Your task to perform on an android device: turn on wifi Image 0: 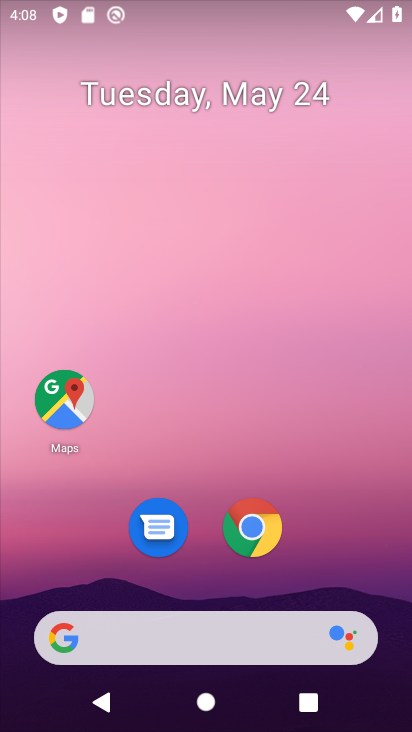
Step 0: drag from (140, 610) to (263, 197)
Your task to perform on an android device: turn on wifi Image 1: 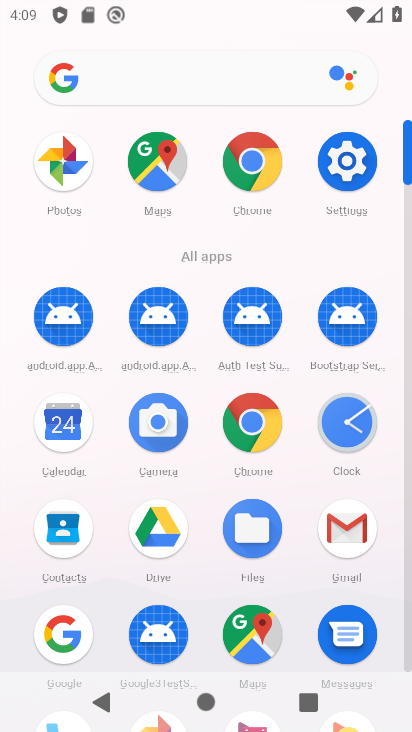
Step 1: click (342, 168)
Your task to perform on an android device: turn on wifi Image 2: 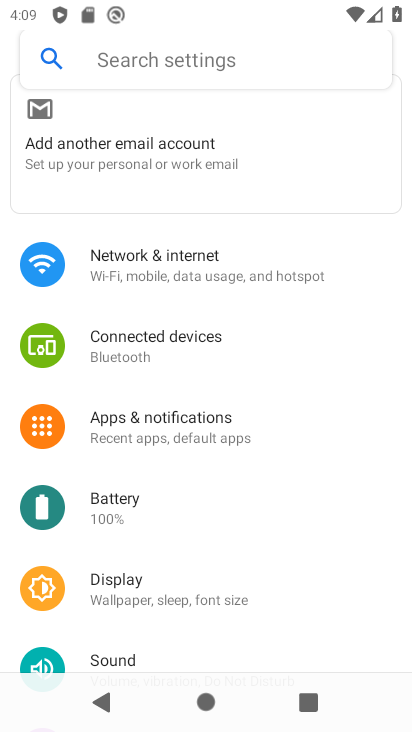
Step 2: click (311, 266)
Your task to perform on an android device: turn on wifi Image 3: 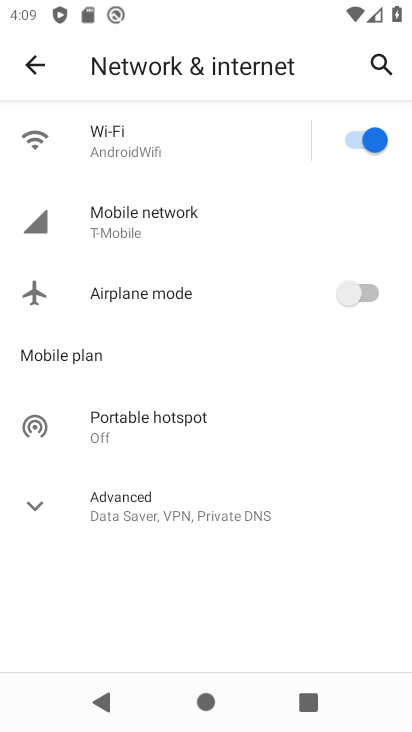
Step 3: task complete